Your task to perform on an android device: find snoozed emails in the gmail app Image 0: 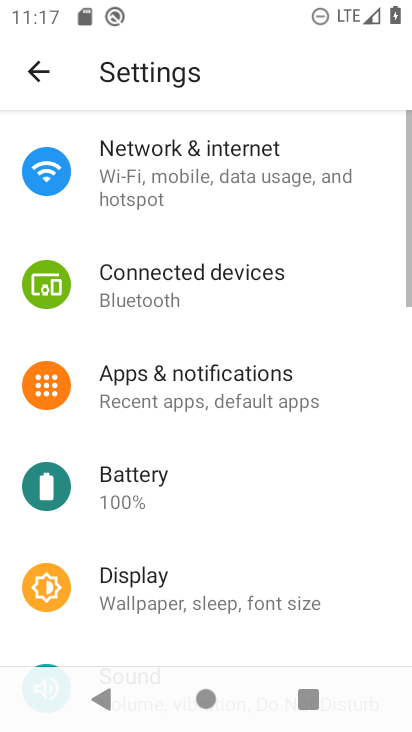
Step 0: press home button
Your task to perform on an android device: find snoozed emails in the gmail app Image 1: 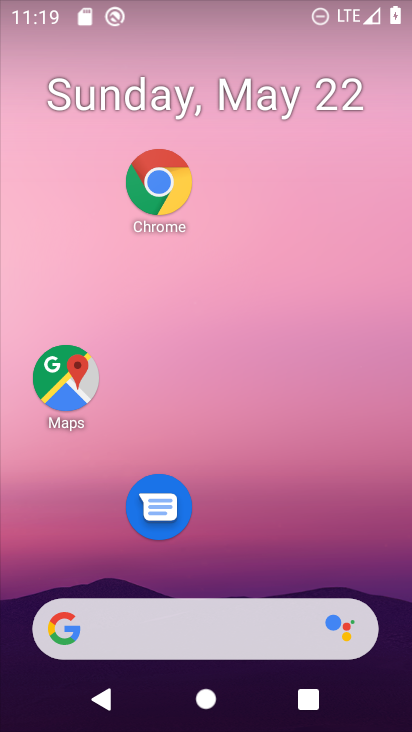
Step 1: drag from (243, 608) to (270, 52)
Your task to perform on an android device: find snoozed emails in the gmail app Image 2: 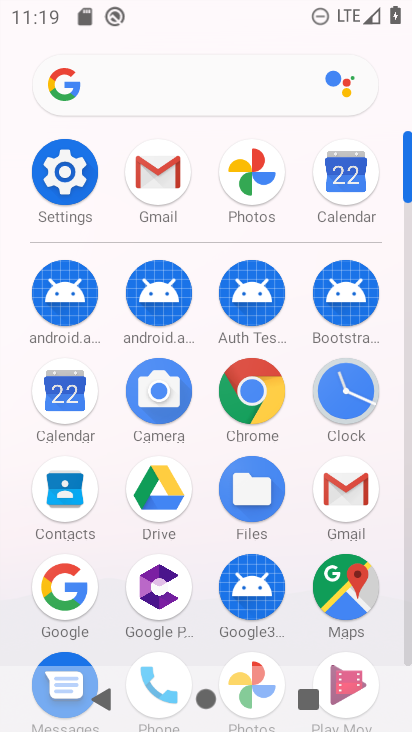
Step 2: click (165, 167)
Your task to perform on an android device: find snoozed emails in the gmail app Image 3: 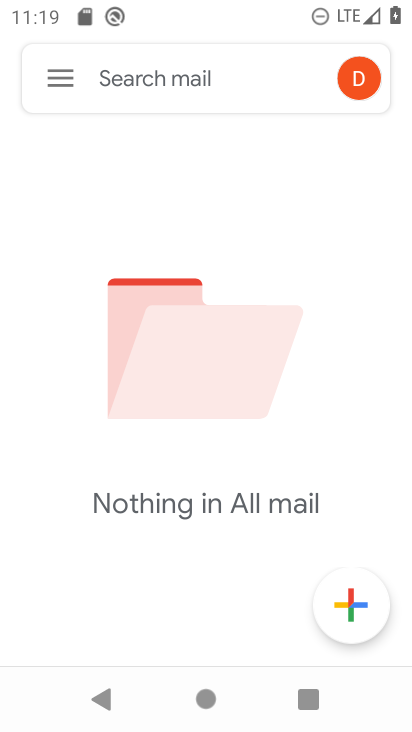
Step 3: click (44, 87)
Your task to perform on an android device: find snoozed emails in the gmail app Image 4: 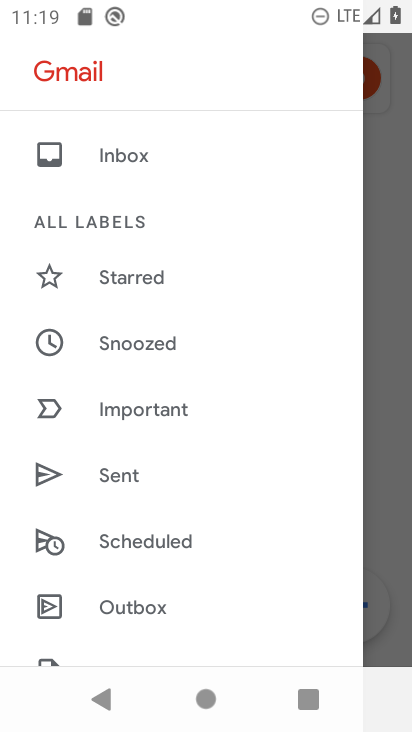
Step 4: click (248, 341)
Your task to perform on an android device: find snoozed emails in the gmail app Image 5: 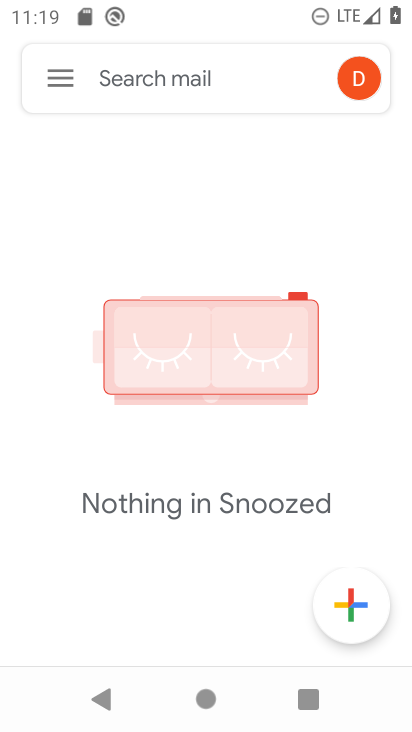
Step 5: task complete